Your task to perform on an android device: Open the map Image 0: 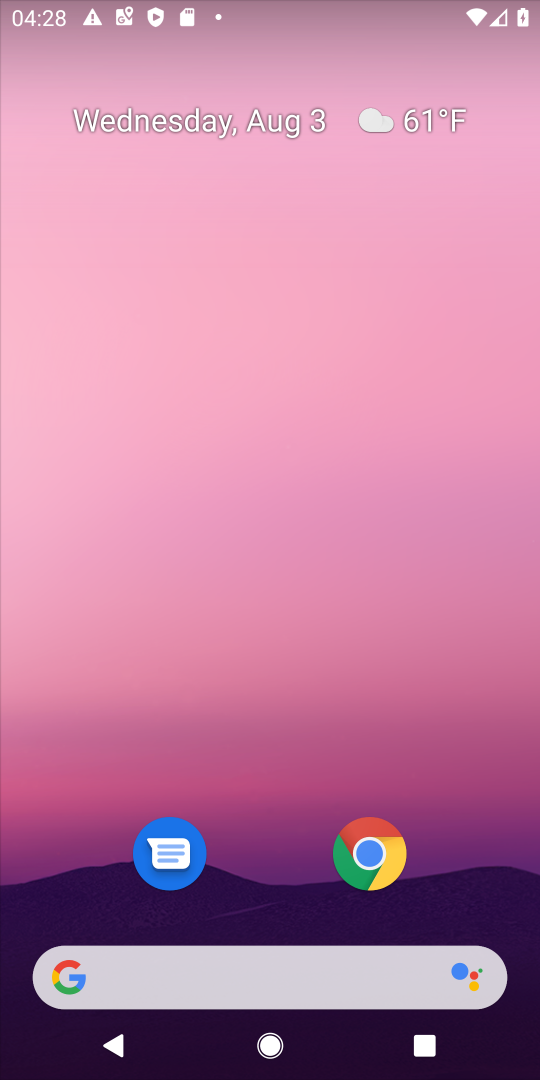
Step 0: drag from (268, 893) to (265, 170)
Your task to perform on an android device: Open the map Image 1: 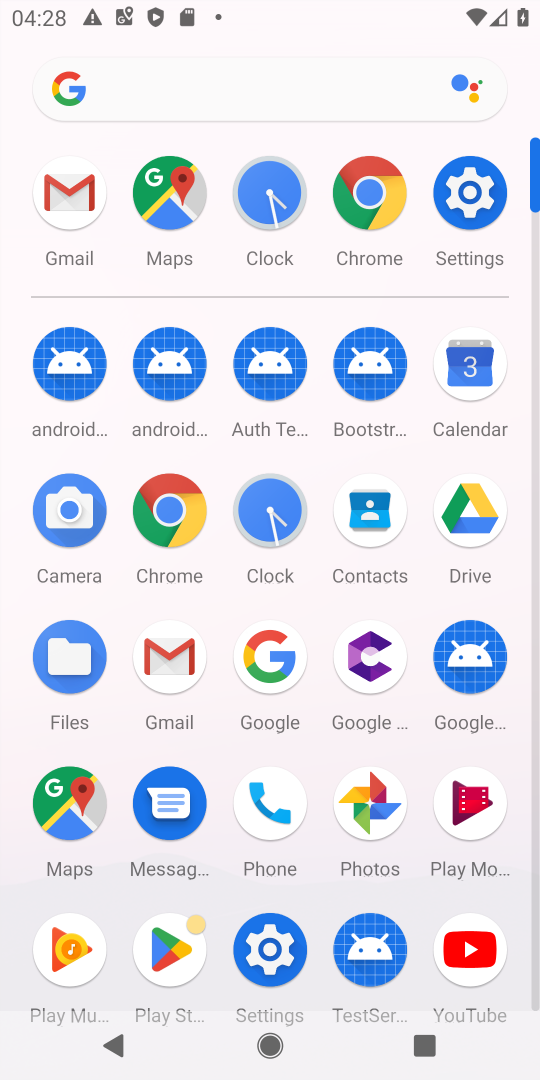
Step 1: click (73, 810)
Your task to perform on an android device: Open the map Image 2: 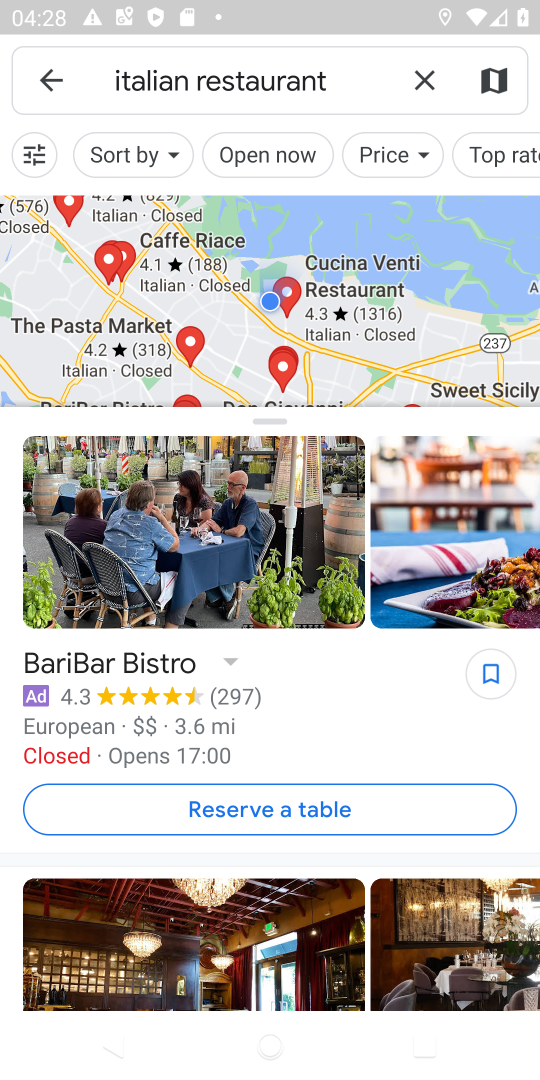
Step 2: task complete